Your task to perform on an android device: Open settings on Google Maps Image 0: 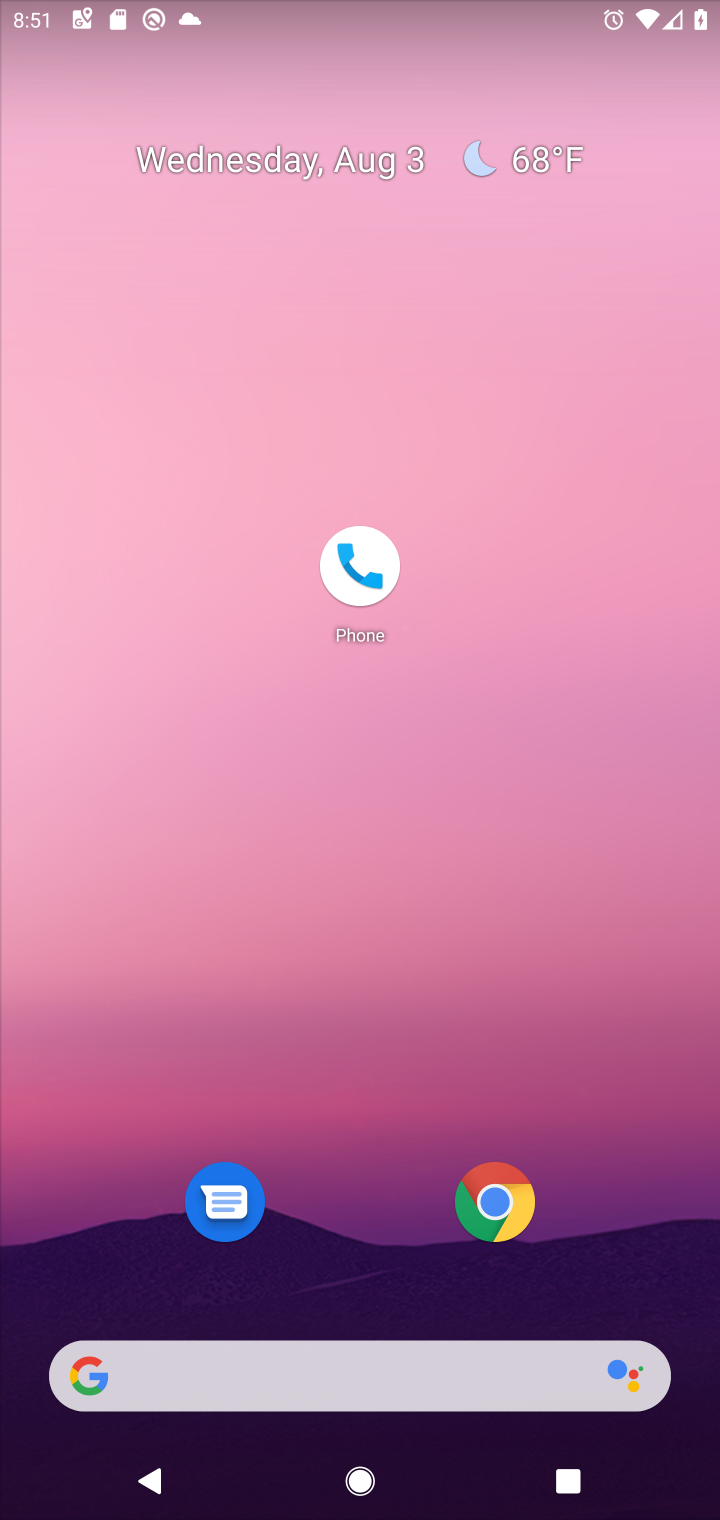
Step 0: drag from (252, 1383) to (382, 190)
Your task to perform on an android device: Open settings on Google Maps Image 1: 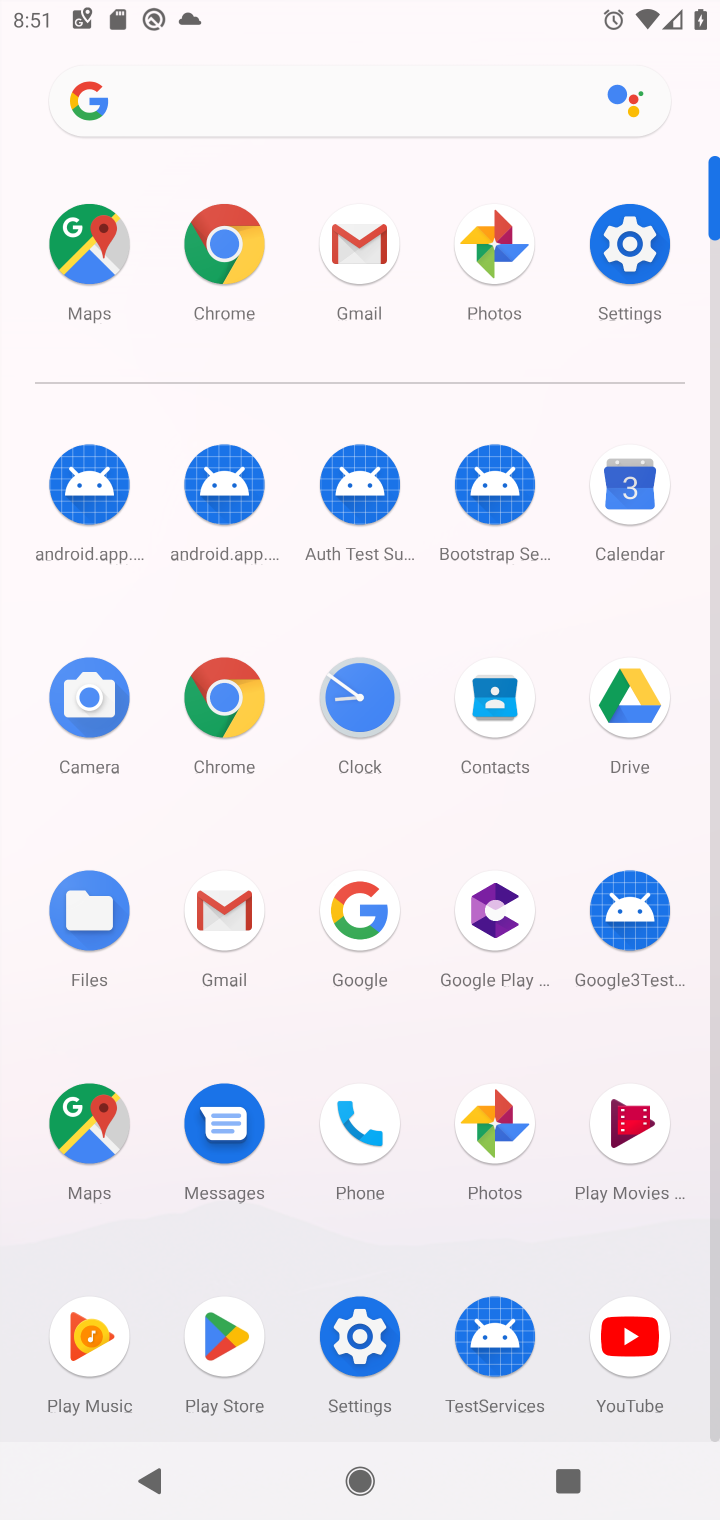
Step 1: click (88, 248)
Your task to perform on an android device: Open settings on Google Maps Image 2: 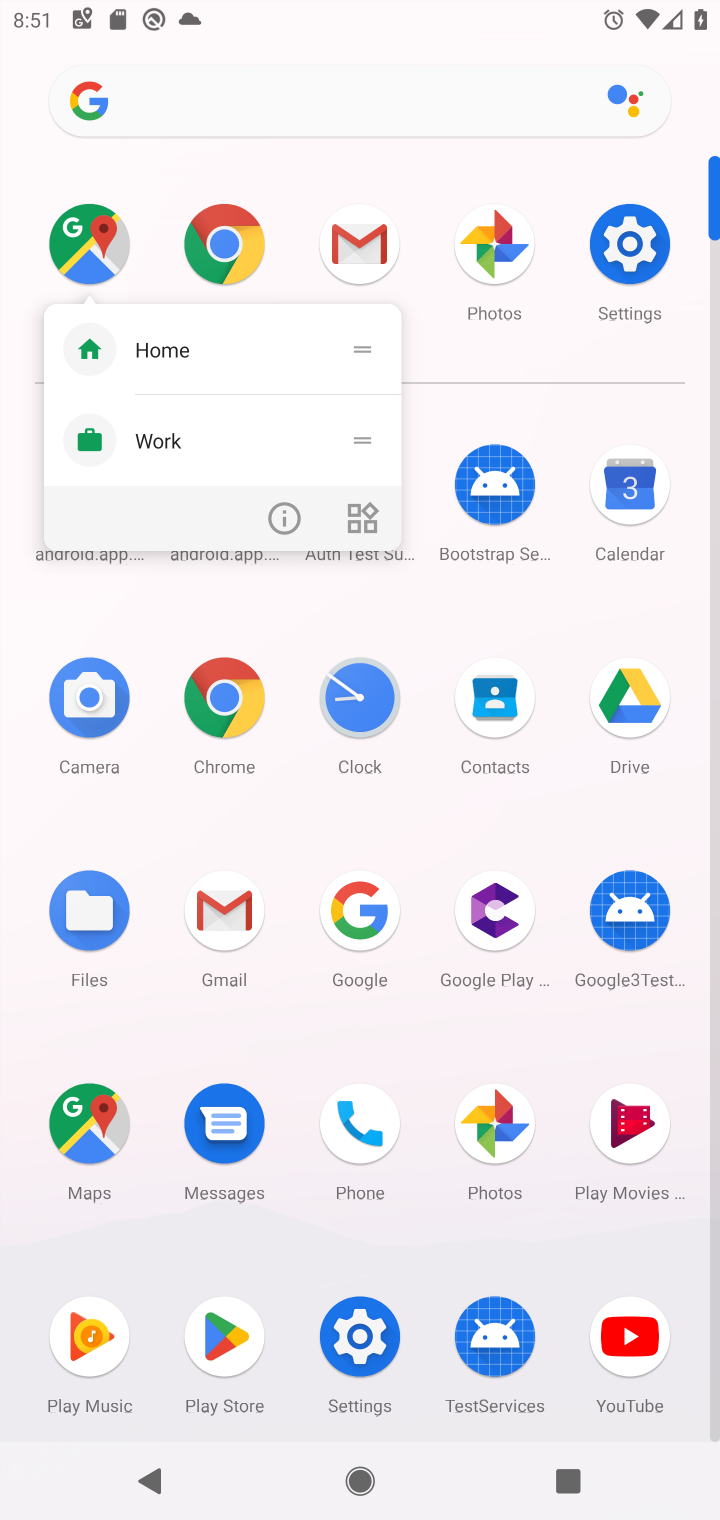
Step 2: click (88, 248)
Your task to perform on an android device: Open settings on Google Maps Image 3: 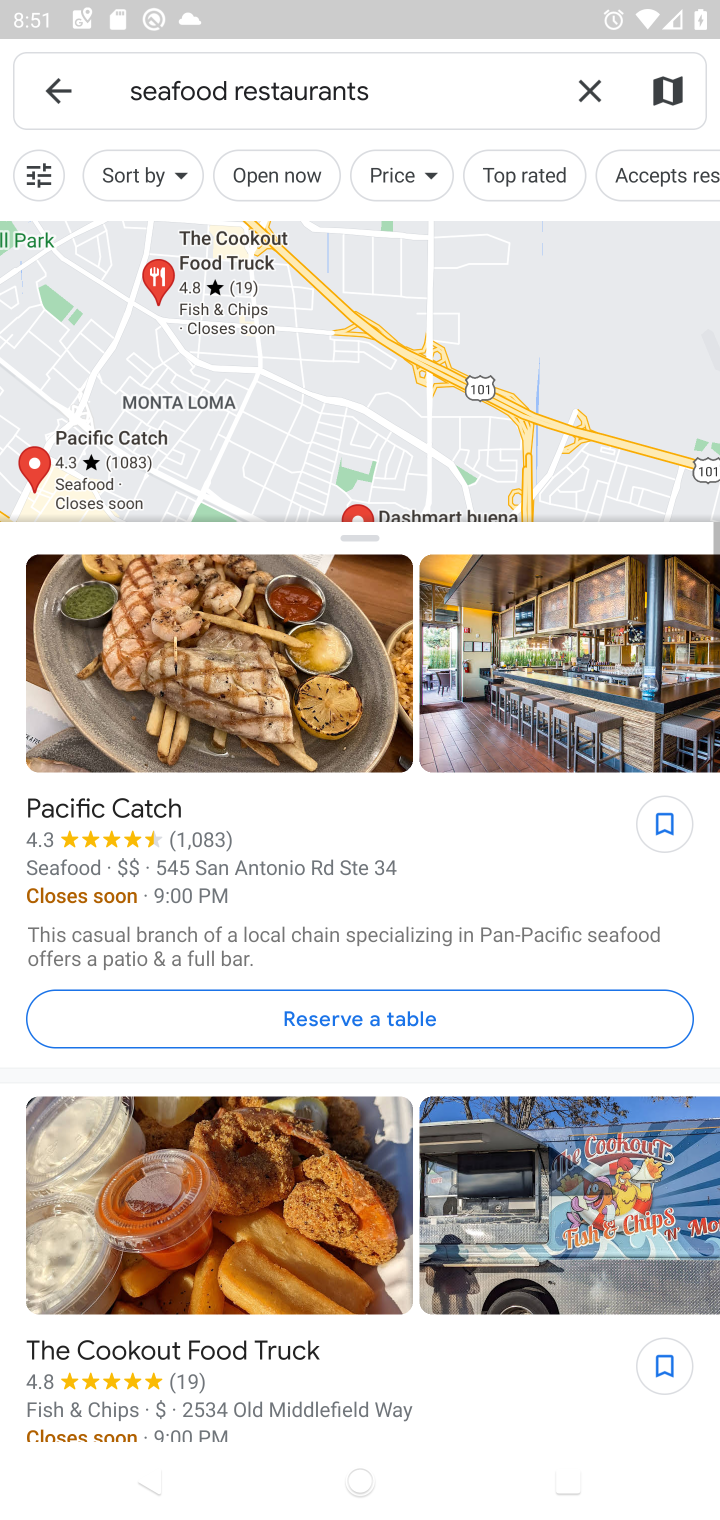
Step 3: press back button
Your task to perform on an android device: Open settings on Google Maps Image 4: 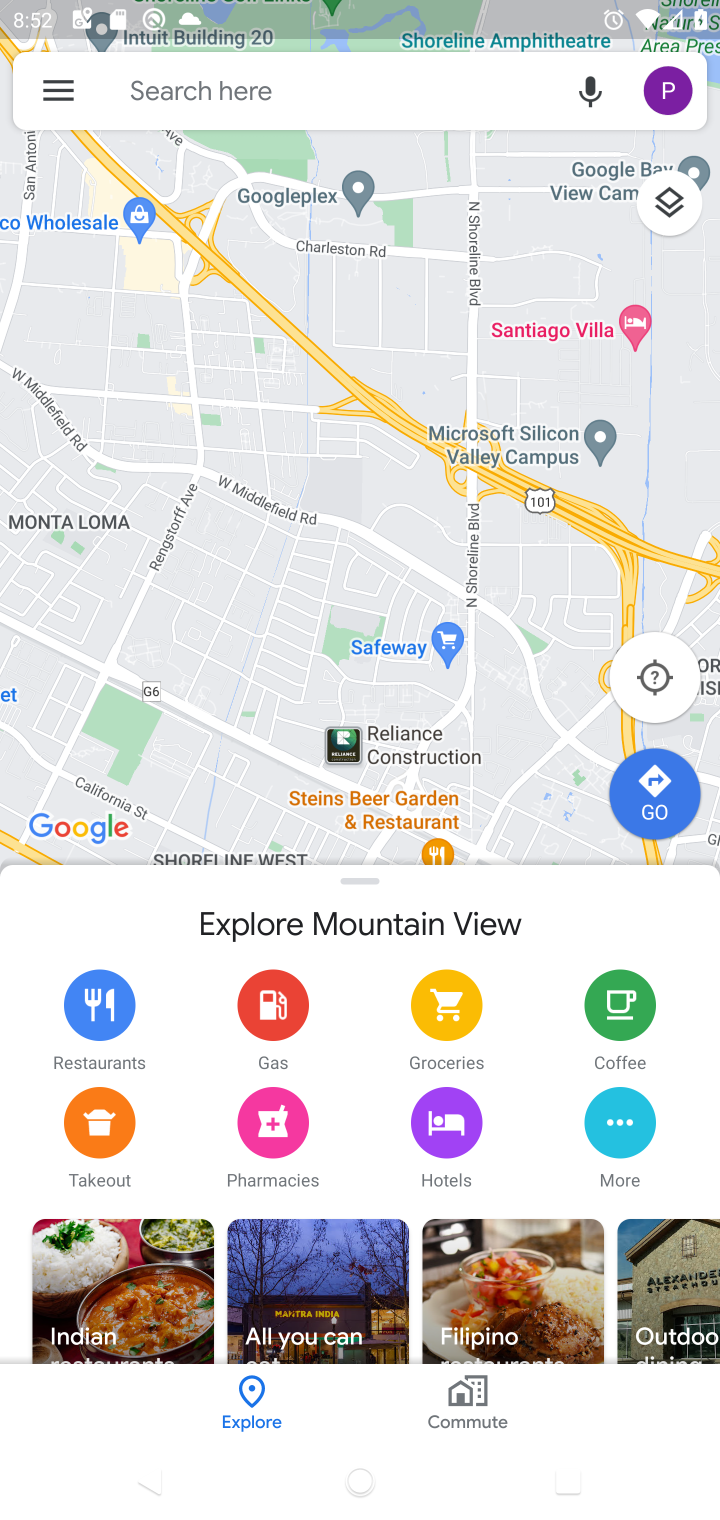
Step 4: click (68, 92)
Your task to perform on an android device: Open settings on Google Maps Image 5: 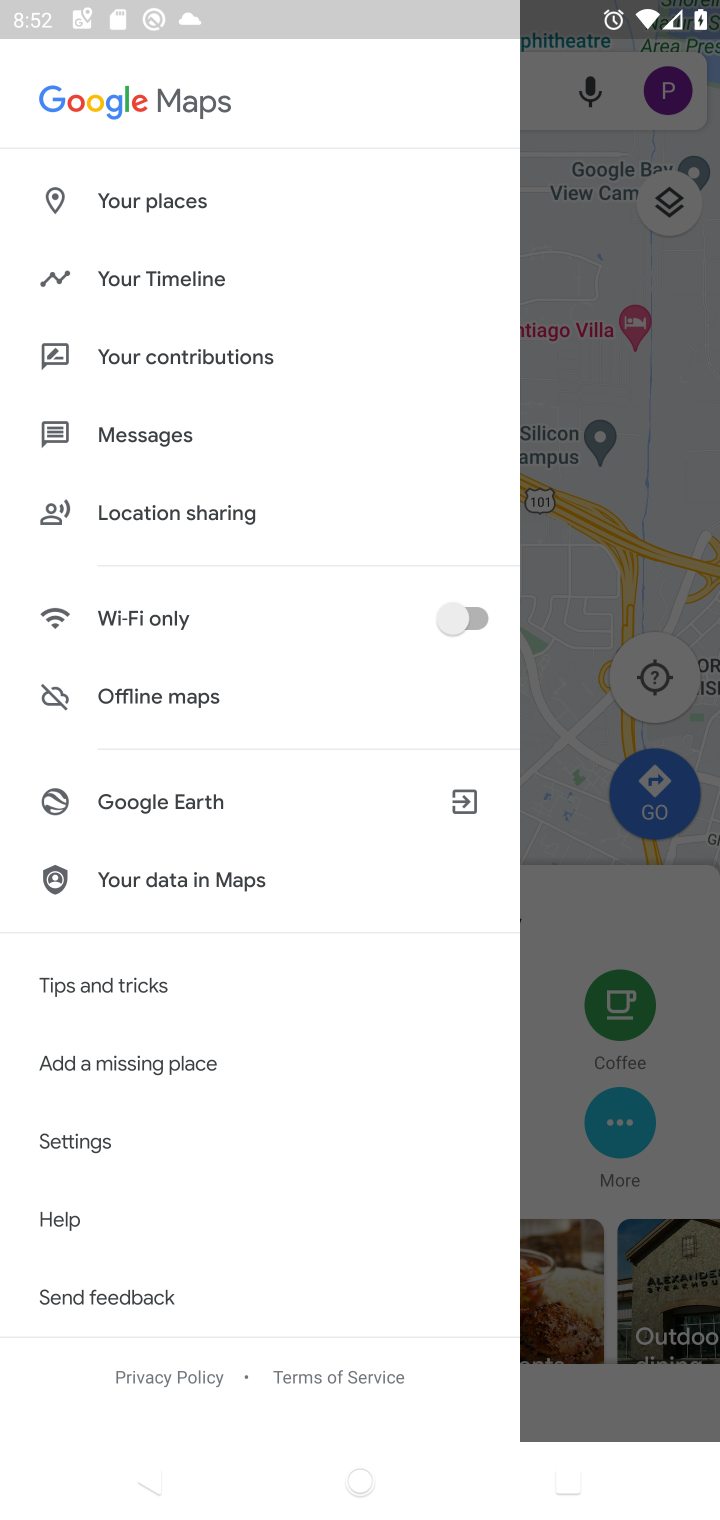
Step 5: click (84, 1137)
Your task to perform on an android device: Open settings on Google Maps Image 6: 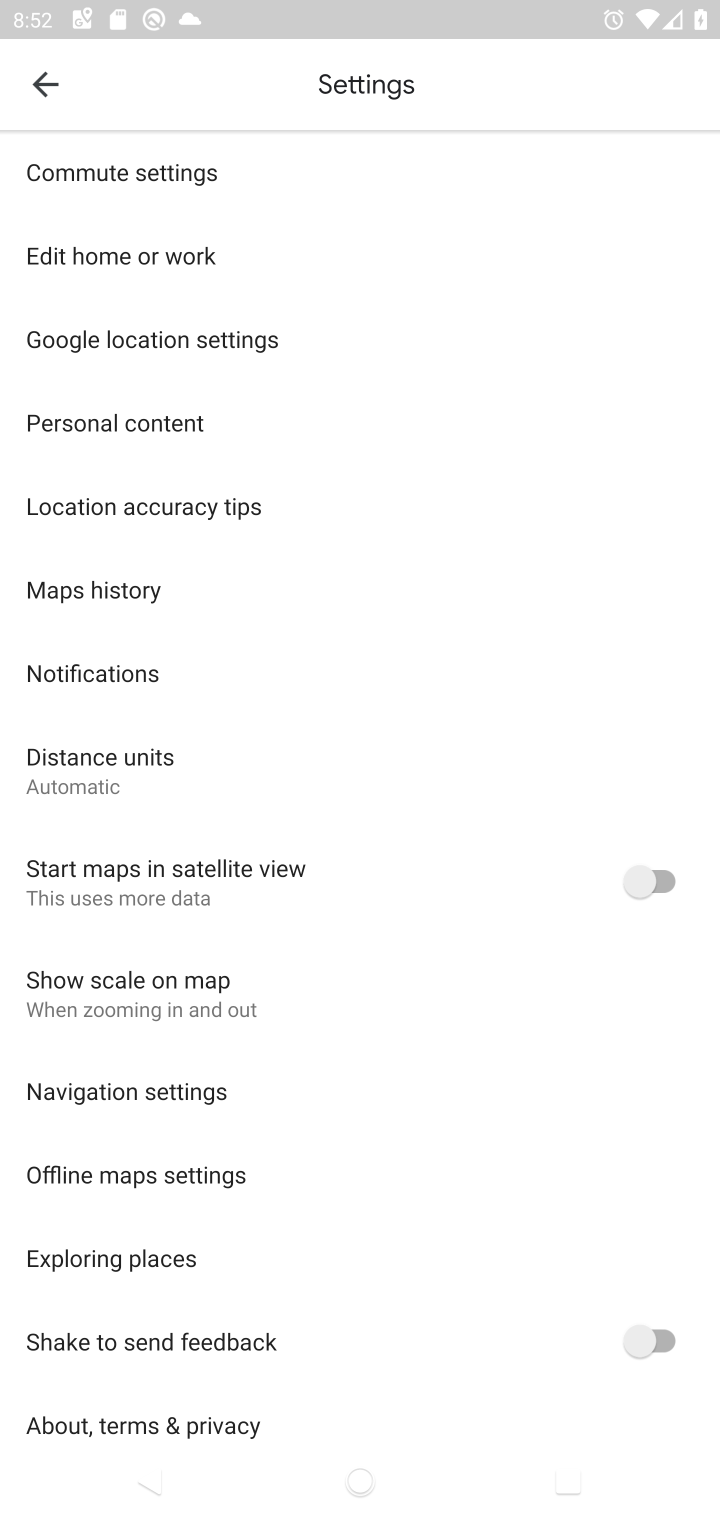
Step 6: task complete